Your task to perform on an android device: delete a single message in the gmail app Image 0: 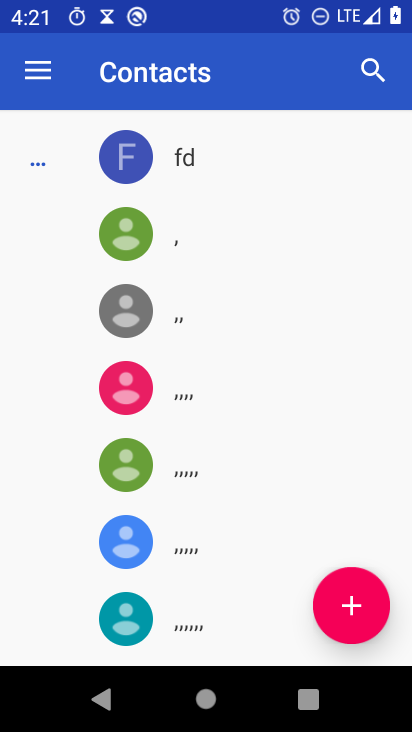
Step 0: press home button
Your task to perform on an android device: delete a single message in the gmail app Image 1: 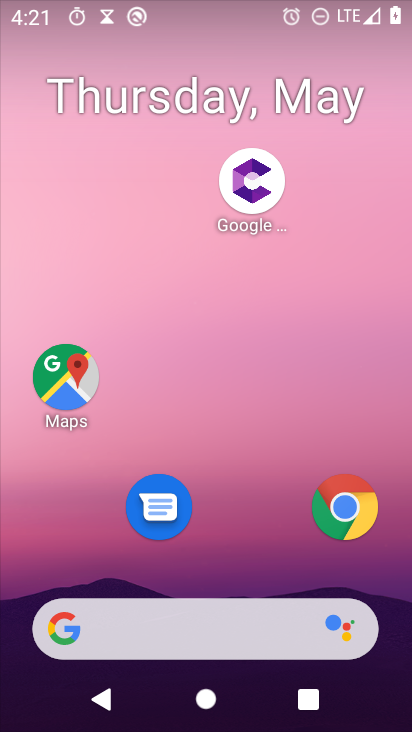
Step 1: drag from (207, 408) to (152, 75)
Your task to perform on an android device: delete a single message in the gmail app Image 2: 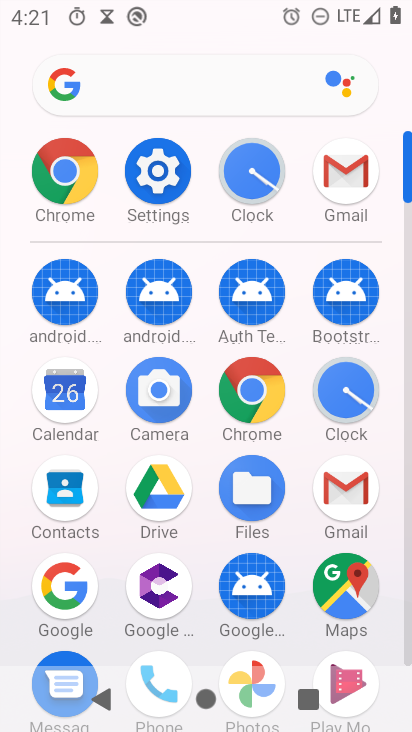
Step 2: click (355, 182)
Your task to perform on an android device: delete a single message in the gmail app Image 3: 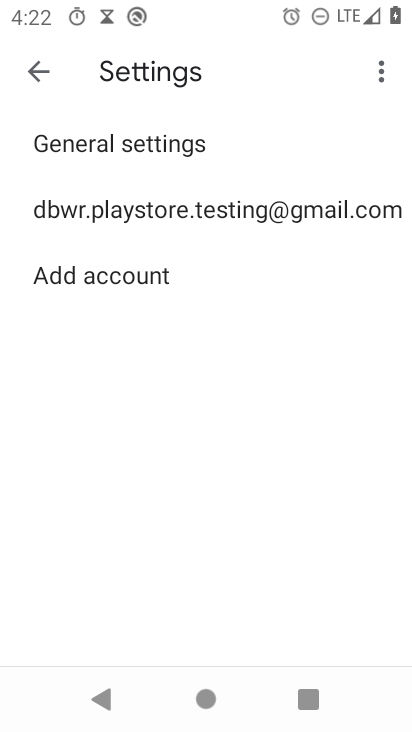
Step 3: click (40, 71)
Your task to perform on an android device: delete a single message in the gmail app Image 4: 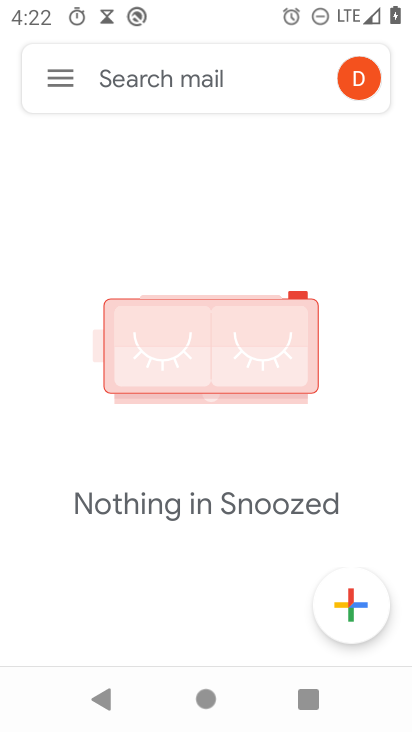
Step 4: click (73, 76)
Your task to perform on an android device: delete a single message in the gmail app Image 5: 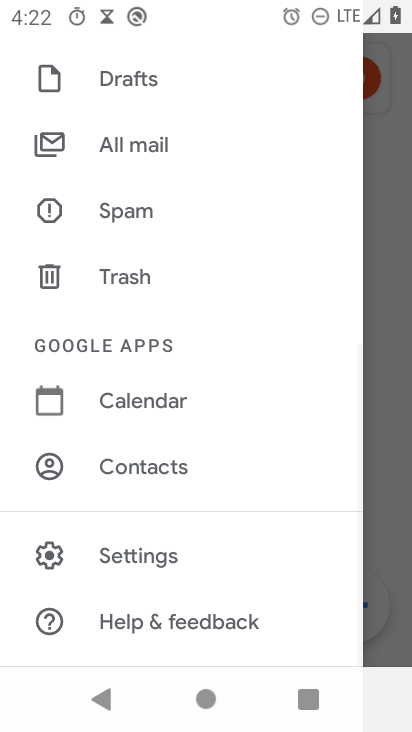
Step 5: click (111, 151)
Your task to perform on an android device: delete a single message in the gmail app Image 6: 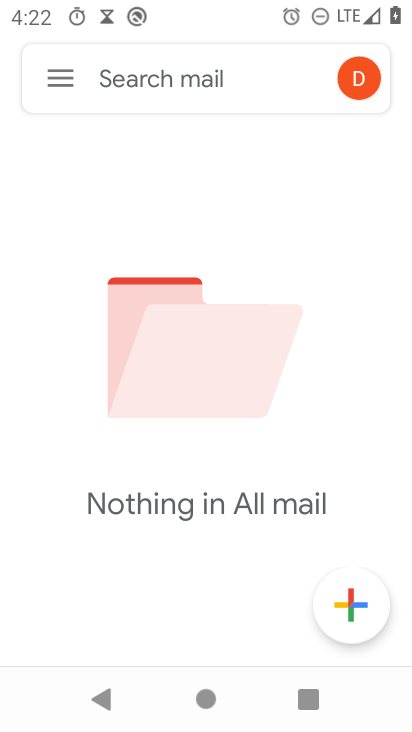
Step 6: task complete